Your task to perform on an android device: Do I have any events today? Image 0: 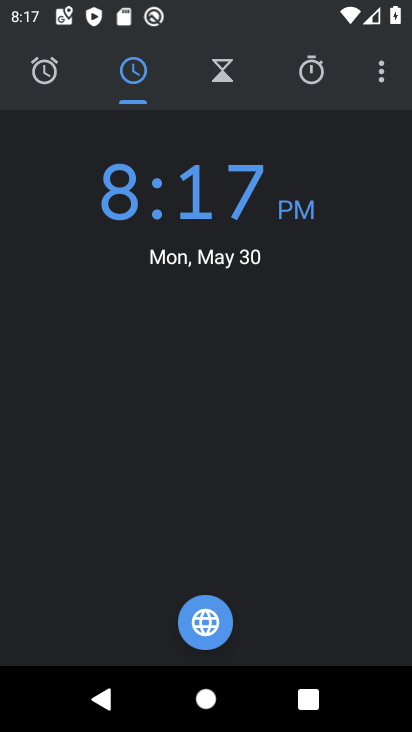
Step 0: press home button
Your task to perform on an android device: Do I have any events today? Image 1: 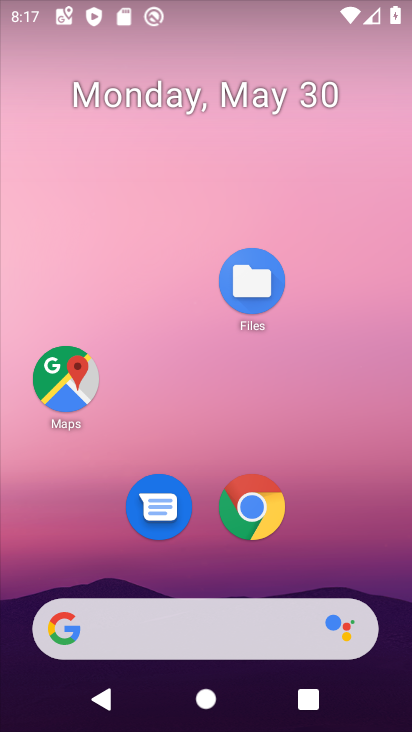
Step 1: drag from (201, 547) to (212, 117)
Your task to perform on an android device: Do I have any events today? Image 2: 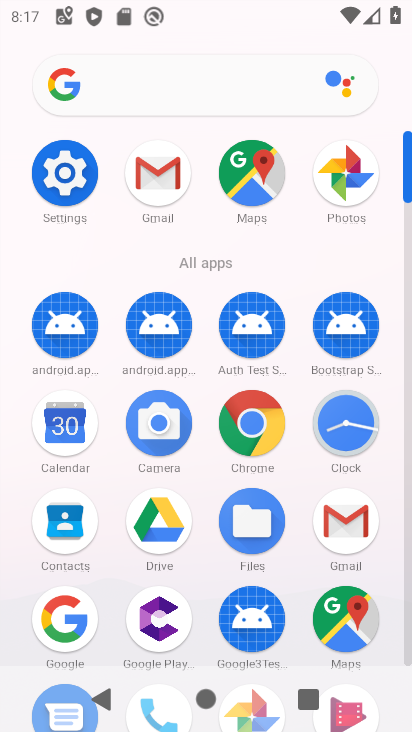
Step 2: click (82, 436)
Your task to perform on an android device: Do I have any events today? Image 3: 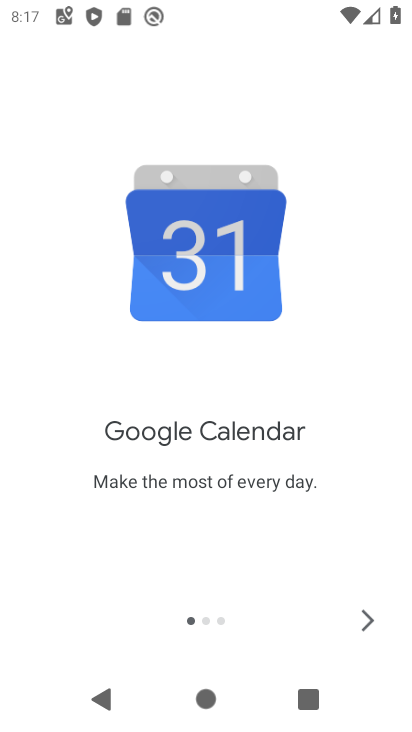
Step 3: click (365, 622)
Your task to perform on an android device: Do I have any events today? Image 4: 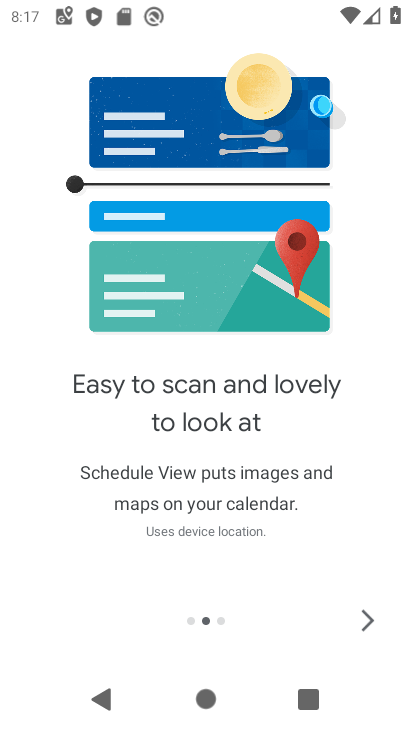
Step 4: click (364, 623)
Your task to perform on an android device: Do I have any events today? Image 5: 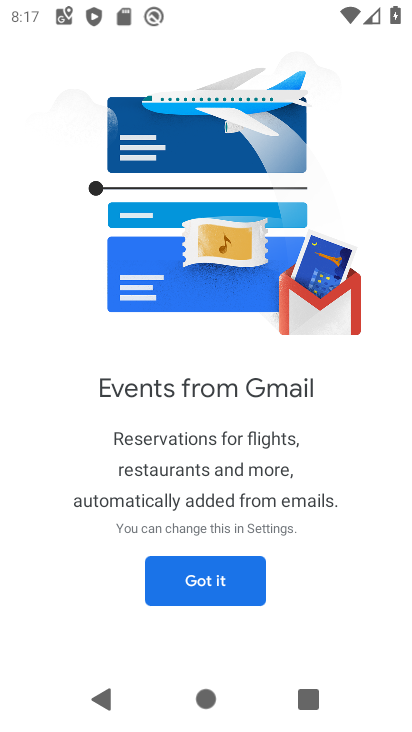
Step 5: click (204, 575)
Your task to perform on an android device: Do I have any events today? Image 6: 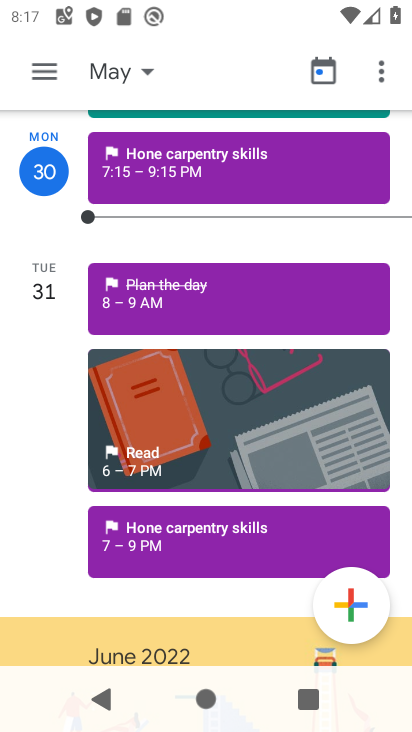
Step 6: click (37, 68)
Your task to perform on an android device: Do I have any events today? Image 7: 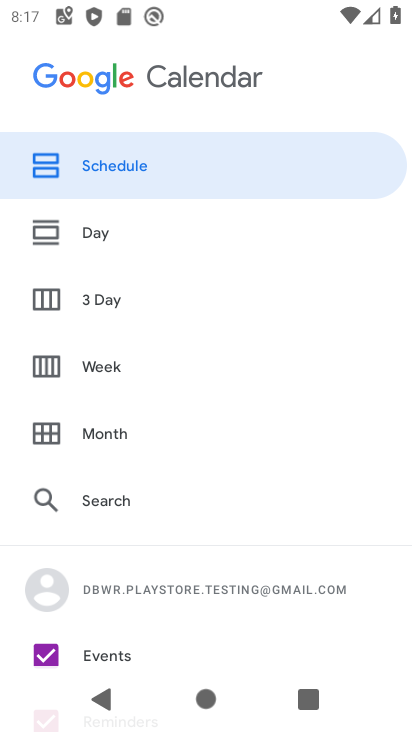
Step 7: drag from (144, 542) to (208, 278)
Your task to perform on an android device: Do I have any events today? Image 8: 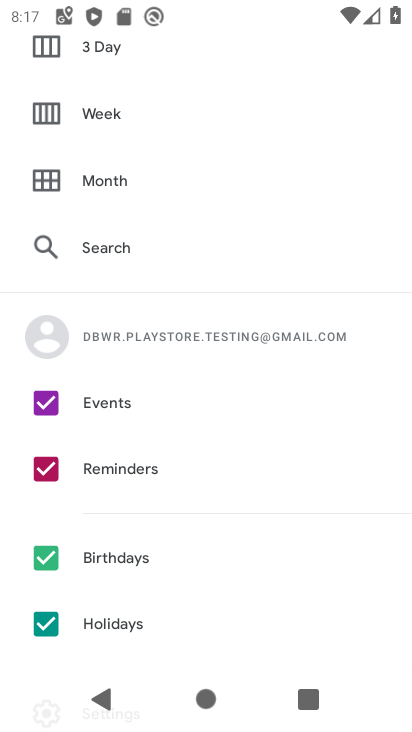
Step 8: click (47, 468)
Your task to perform on an android device: Do I have any events today? Image 9: 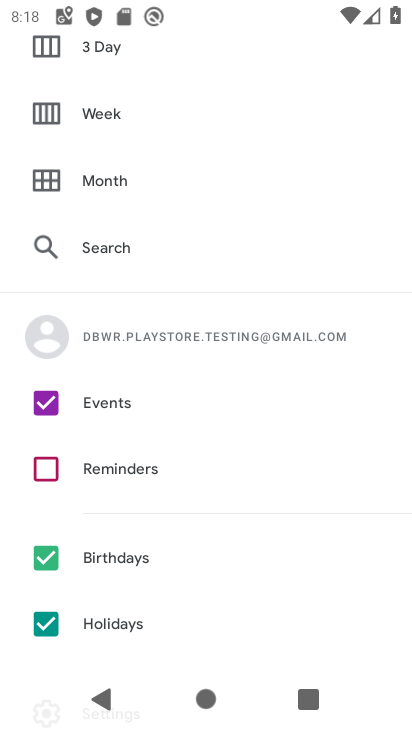
Step 9: click (49, 556)
Your task to perform on an android device: Do I have any events today? Image 10: 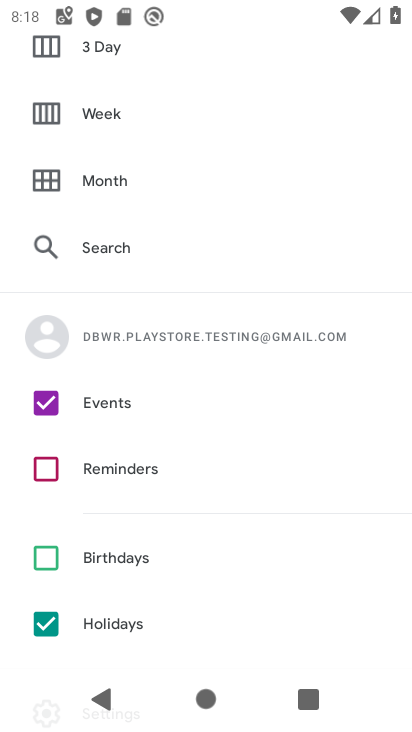
Step 10: click (45, 622)
Your task to perform on an android device: Do I have any events today? Image 11: 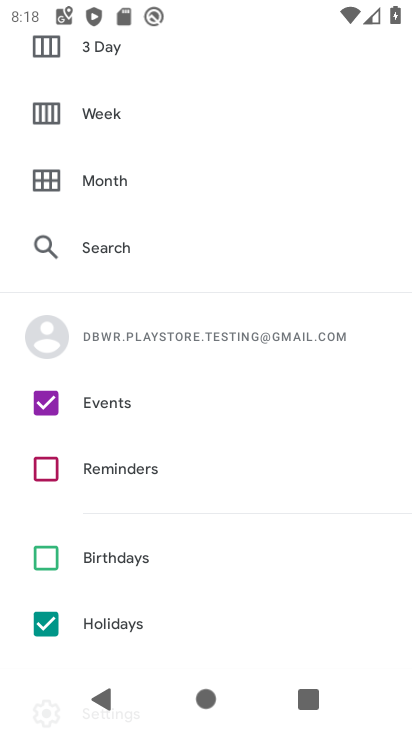
Step 11: click (166, 393)
Your task to perform on an android device: Do I have any events today? Image 12: 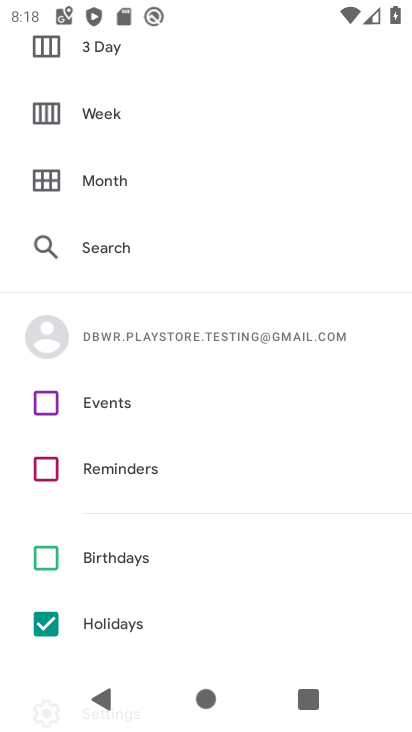
Step 12: click (56, 626)
Your task to perform on an android device: Do I have any events today? Image 13: 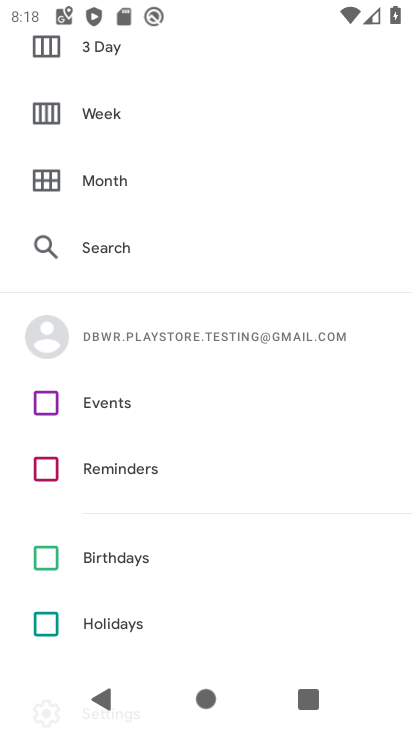
Step 13: drag from (204, 203) to (209, 509)
Your task to perform on an android device: Do I have any events today? Image 14: 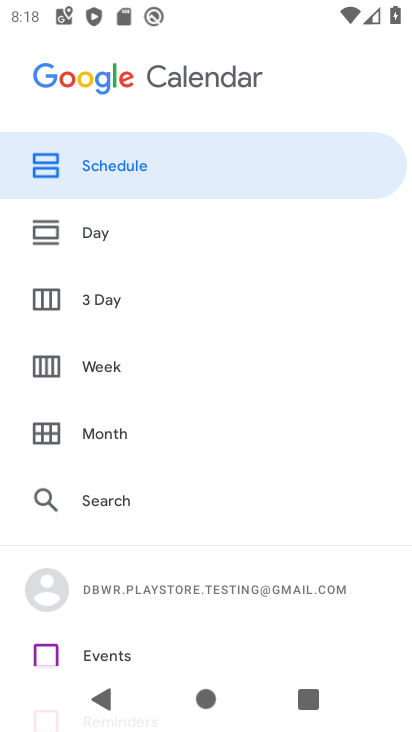
Step 14: click (83, 233)
Your task to perform on an android device: Do I have any events today? Image 15: 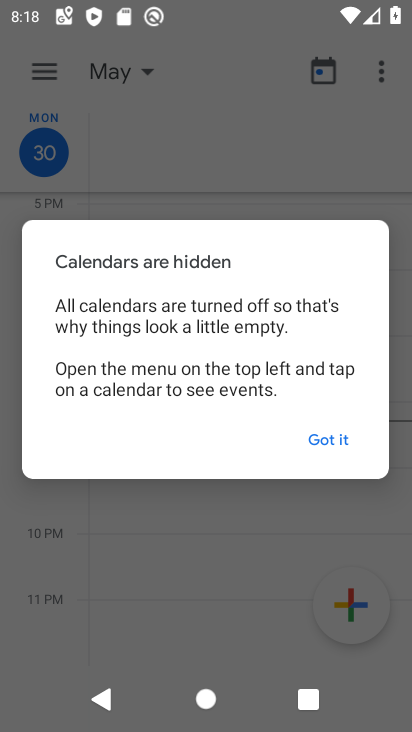
Step 15: click (337, 443)
Your task to perform on an android device: Do I have any events today? Image 16: 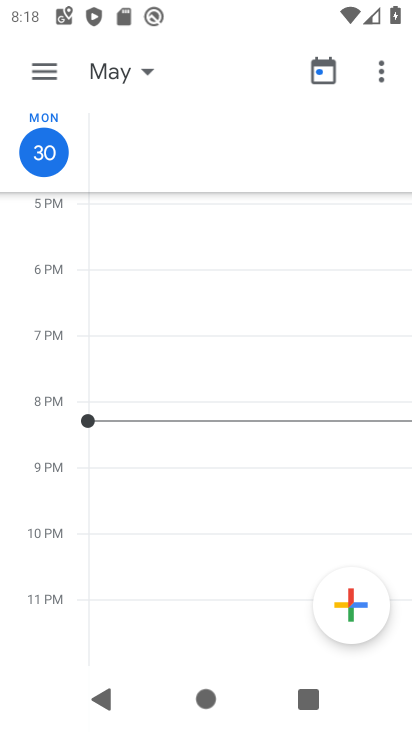
Step 16: task complete